Your task to perform on an android device: Go to Maps Image 0: 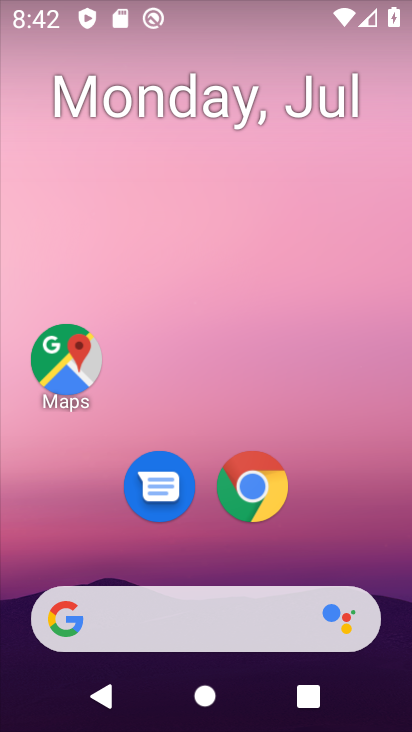
Step 0: click (55, 368)
Your task to perform on an android device: Go to Maps Image 1: 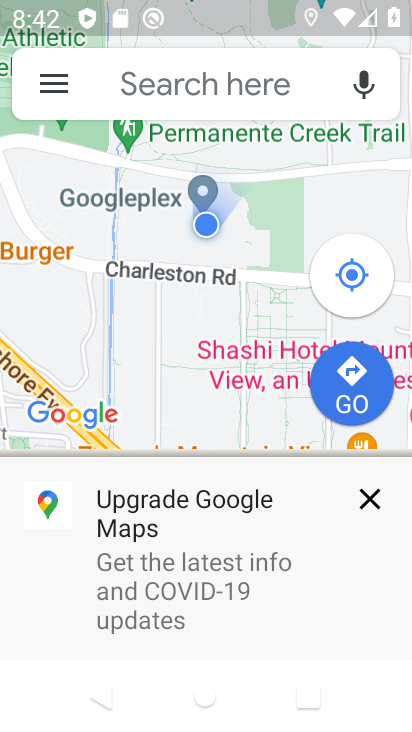
Step 1: task complete